Your task to perform on an android device: Open Chrome and go to settings Image 0: 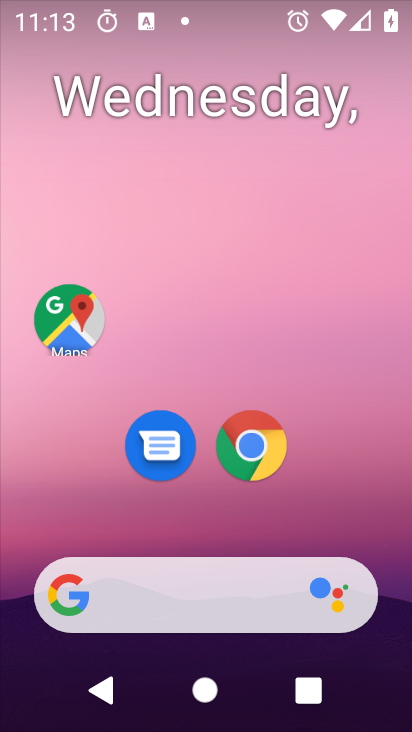
Step 0: drag from (339, 500) to (324, 13)
Your task to perform on an android device: Open Chrome and go to settings Image 1: 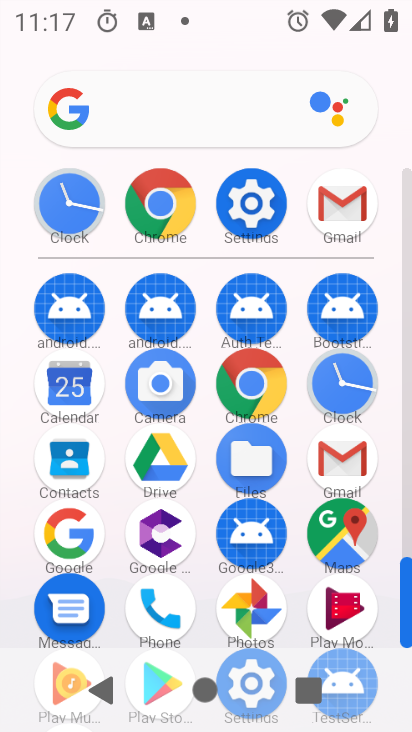
Step 1: click (147, 215)
Your task to perform on an android device: Open Chrome and go to settings Image 2: 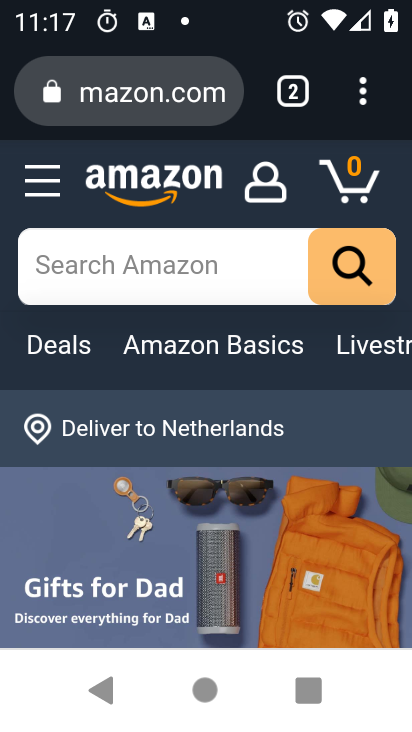
Step 2: task complete